Your task to perform on an android device: all mails in gmail Image 0: 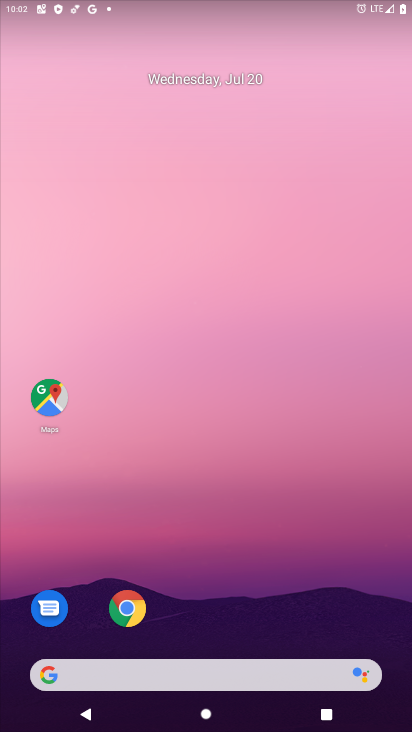
Step 0: drag from (226, 595) to (225, 97)
Your task to perform on an android device: all mails in gmail Image 1: 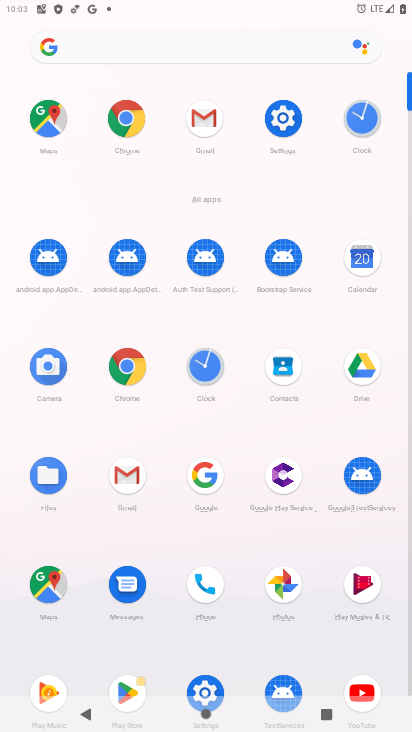
Step 1: click (208, 116)
Your task to perform on an android device: all mails in gmail Image 2: 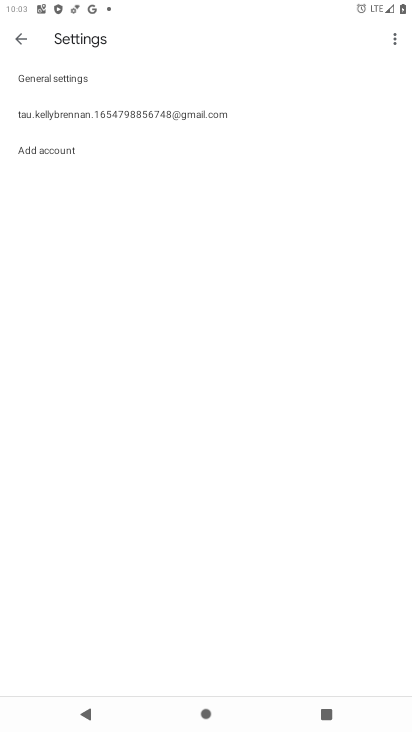
Step 2: click (12, 37)
Your task to perform on an android device: all mails in gmail Image 3: 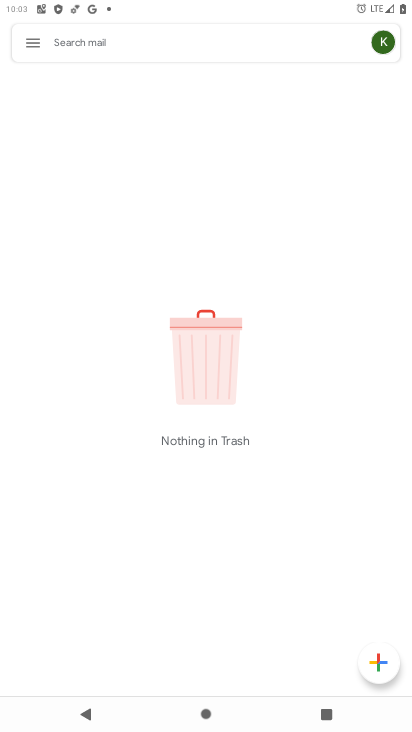
Step 3: click (25, 36)
Your task to perform on an android device: all mails in gmail Image 4: 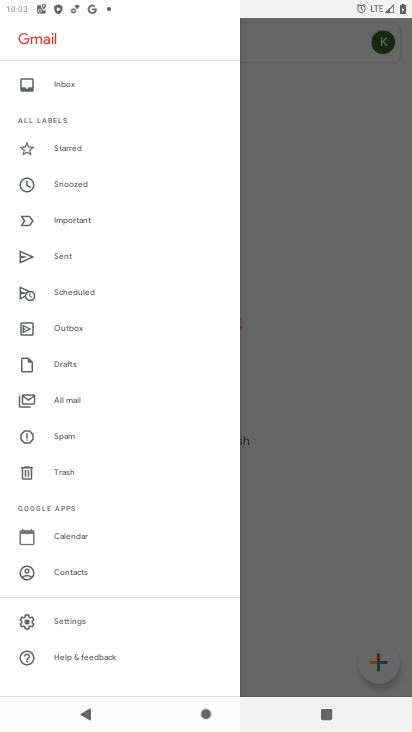
Step 4: click (68, 407)
Your task to perform on an android device: all mails in gmail Image 5: 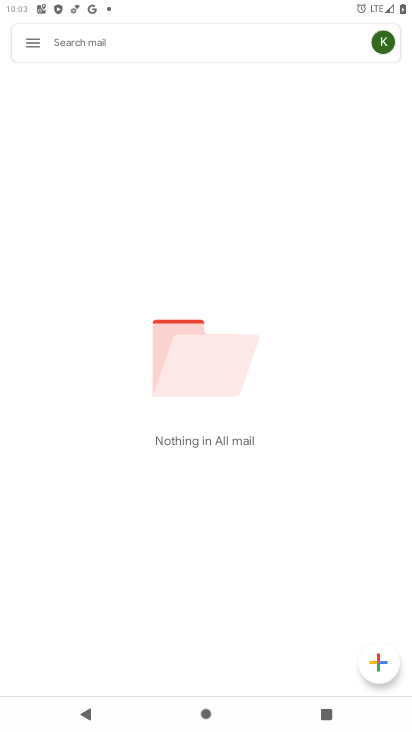
Step 5: task complete